Your task to perform on an android device: change your default location settings in chrome Image 0: 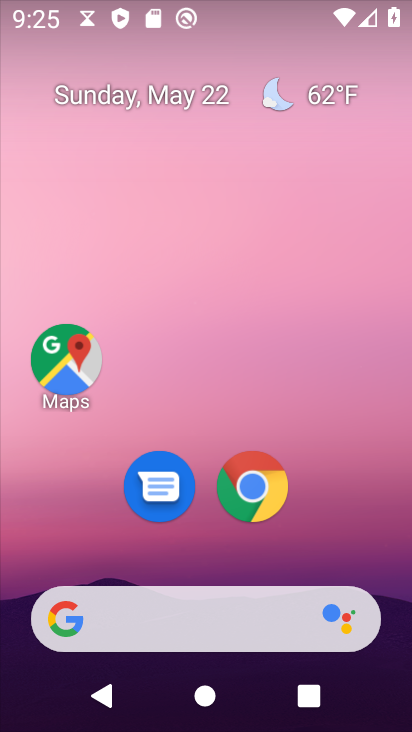
Step 0: click (251, 482)
Your task to perform on an android device: change your default location settings in chrome Image 1: 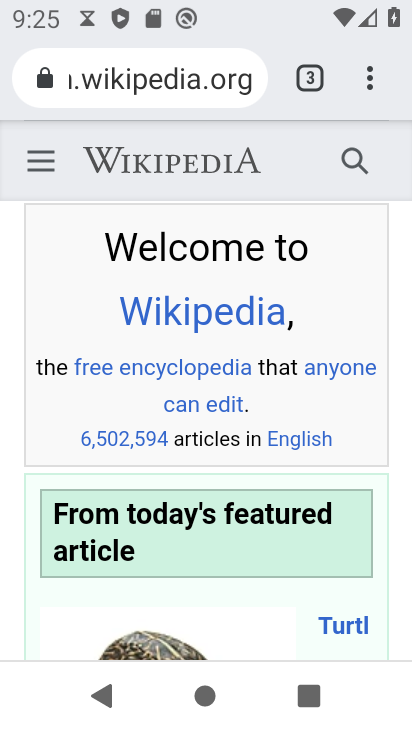
Step 1: click (371, 67)
Your task to perform on an android device: change your default location settings in chrome Image 2: 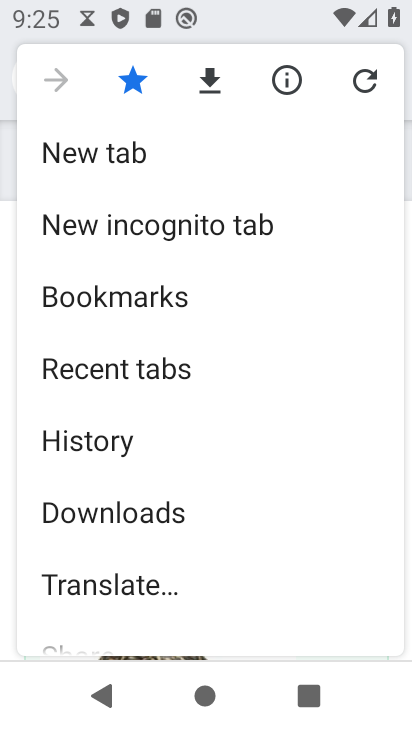
Step 2: drag from (216, 584) to (242, 80)
Your task to perform on an android device: change your default location settings in chrome Image 3: 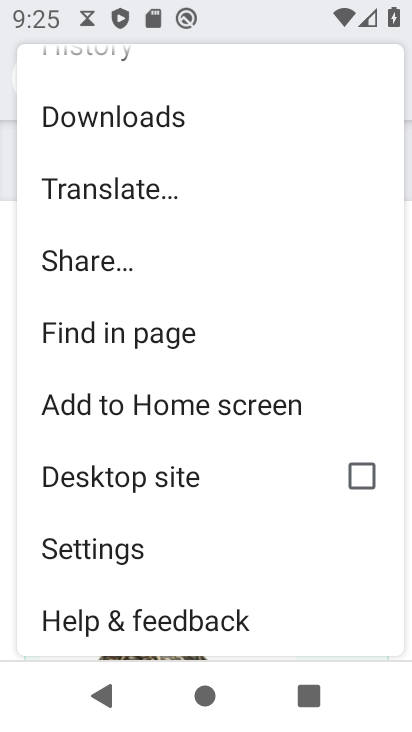
Step 3: click (152, 547)
Your task to perform on an android device: change your default location settings in chrome Image 4: 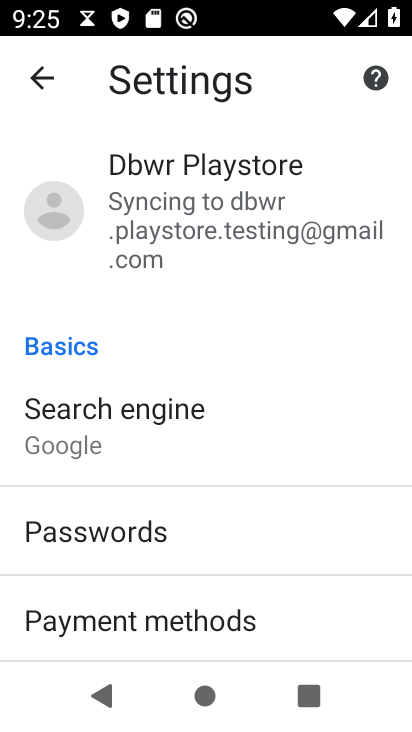
Step 4: drag from (253, 622) to (256, 174)
Your task to perform on an android device: change your default location settings in chrome Image 5: 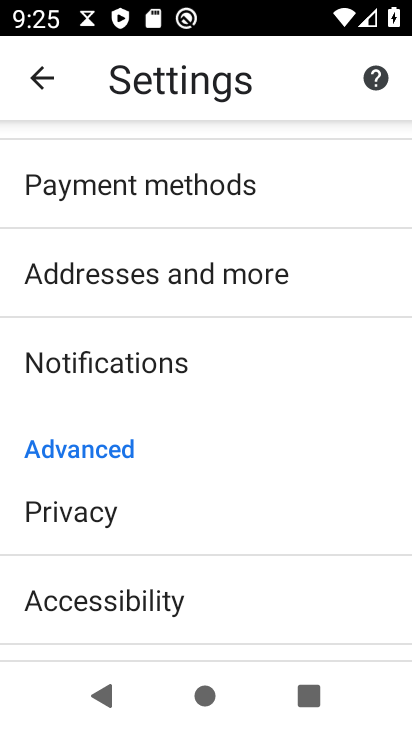
Step 5: drag from (211, 585) to (238, 188)
Your task to perform on an android device: change your default location settings in chrome Image 6: 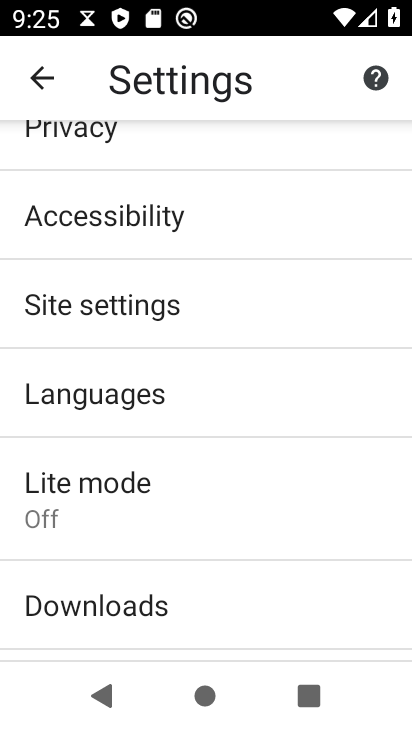
Step 6: click (202, 300)
Your task to perform on an android device: change your default location settings in chrome Image 7: 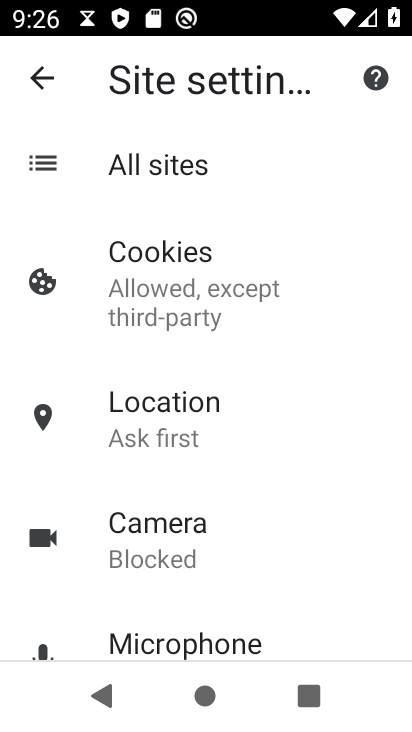
Step 7: click (213, 421)
Your task to perform on an android device: change your default location settings in chrome Image 8: 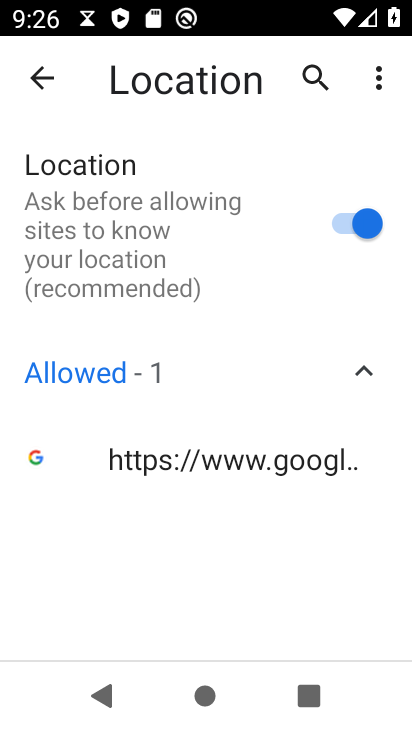
Step 8: click (342, 222)
Your task to perform on an android device: change your default location settings in chrome Image 9: 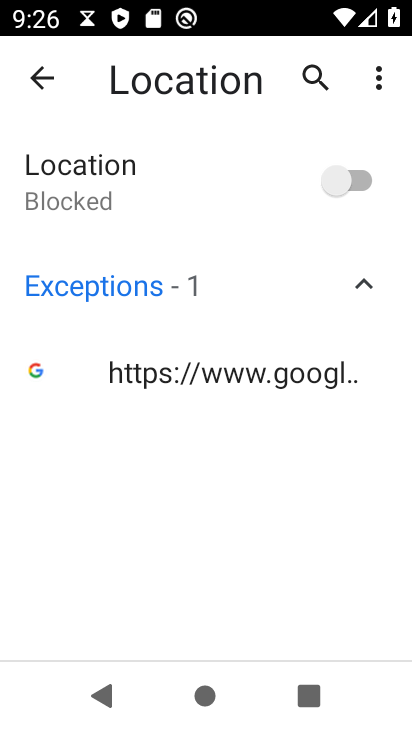
Step 9: task complete